Your task to perform on an android device: turn off notifications settings in the gmail app Image 0: 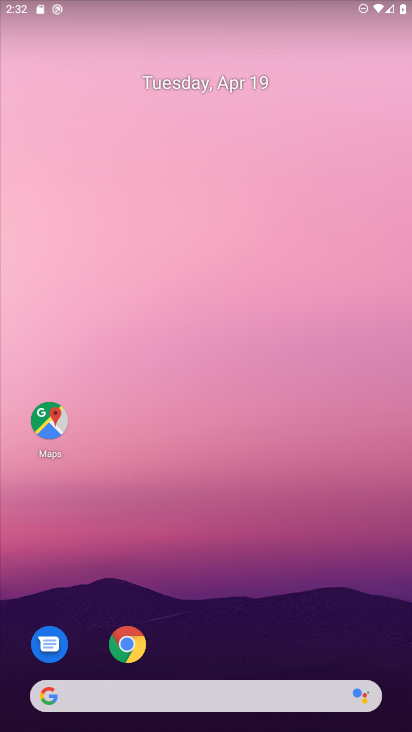
Step 0: drag from (179, 494) to (124, 211)
Your task to perform on an android device: turn off notifications settings in the gmail app Image 1: 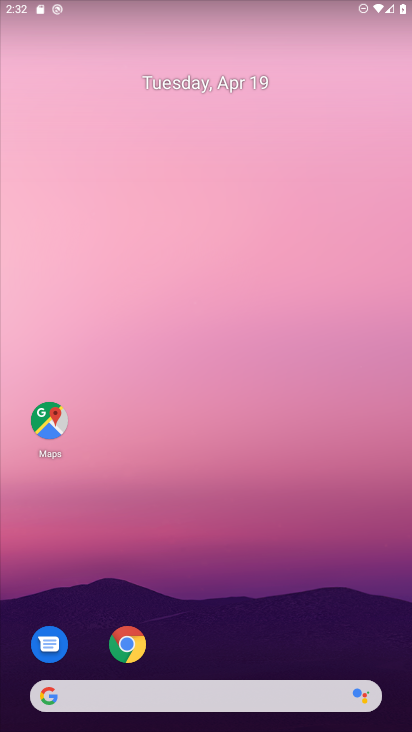
Step 1: drag from (219, 607) to (83, 48)
Your task to perform on an android device: turn off notifications settings in the gmail app Image 2: 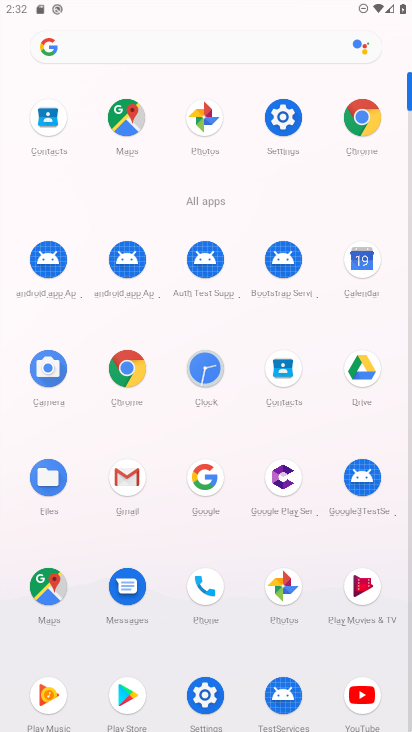
Step 2: click (132, 471)
Your task to perform on an android device: turn off notifications settings in the gmail app Image 3: 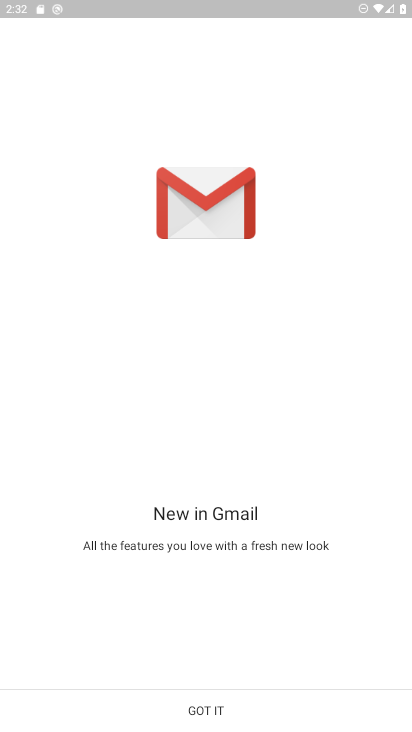
Step 3: click (183, 712)
Your task to perform on an android device: turn off notifications settings in the gmail app Image 4: 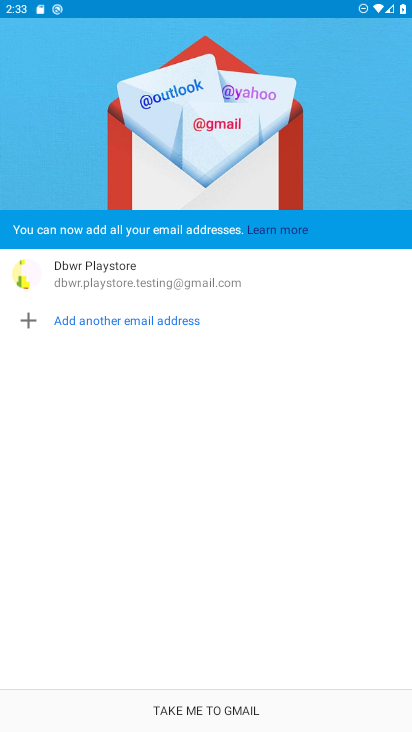
Step 4: click (183, 712)
Your task to perform on an android device: turn off notifications settings in the gmail app Image 5: 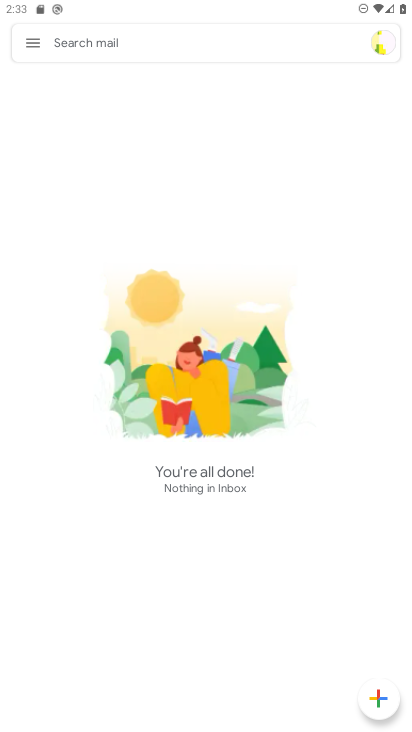
Step 5: click (25, 53)
Your task to perform on an android device: turn off notifications settings in the gmail app Image 6: 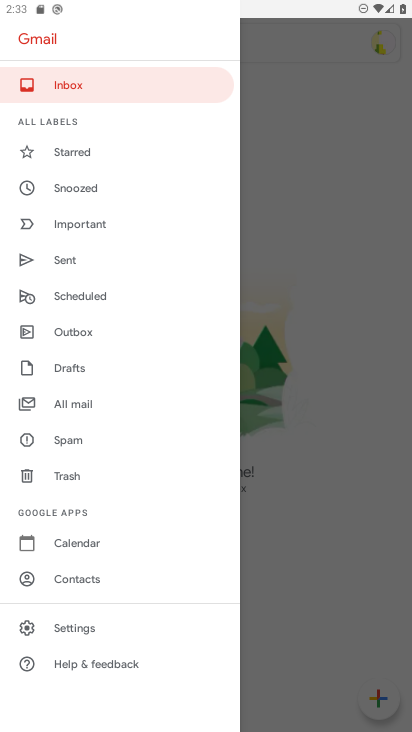
Step 6: click (69, 625)
Your task to perform on an android device: turn off notifications settings in the gmail app Image 7: 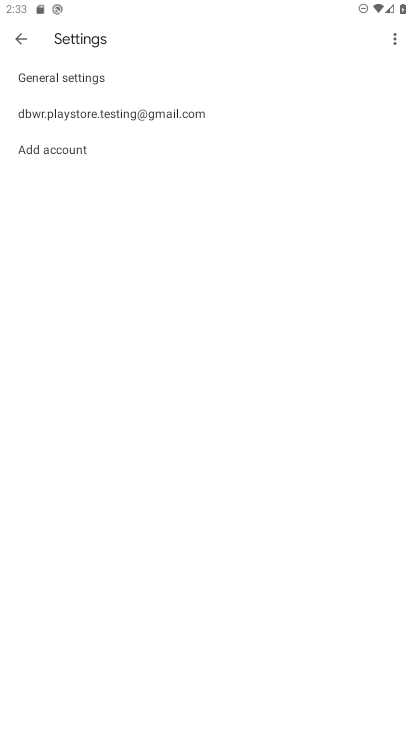
Step 7: click (101, 108)
Your task to perform on an android device: turn off notifications settings in the gmail app Image 8: 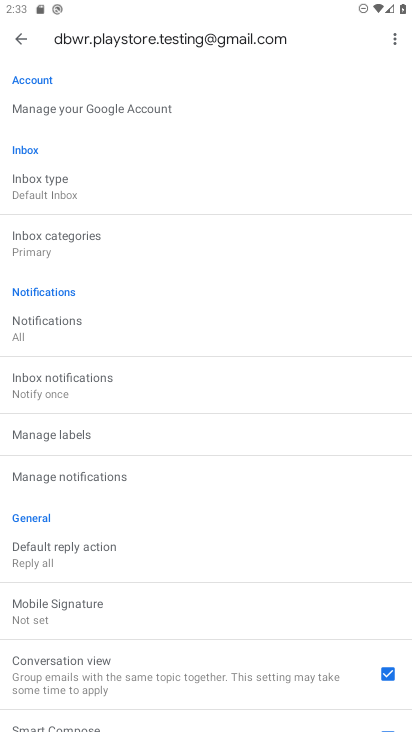
Step 8: click (80, 476)
Your task to perform on an android device: turn off notifications settings in the gmail app Image 9: 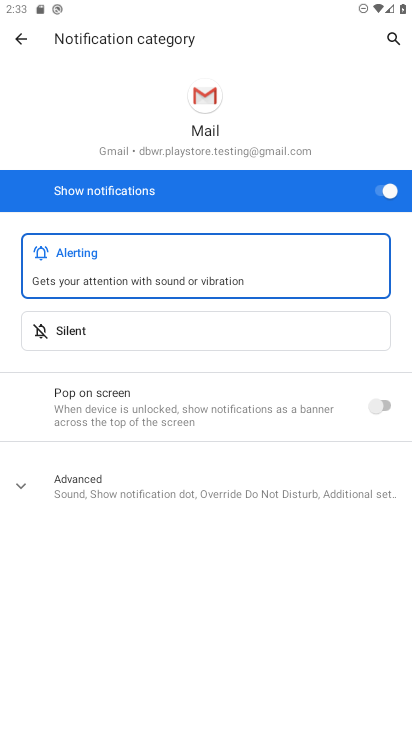
Step 9: click (391, 191)
Your task to perform on an android device: turn off notifications settings in the gmail app Image 10: 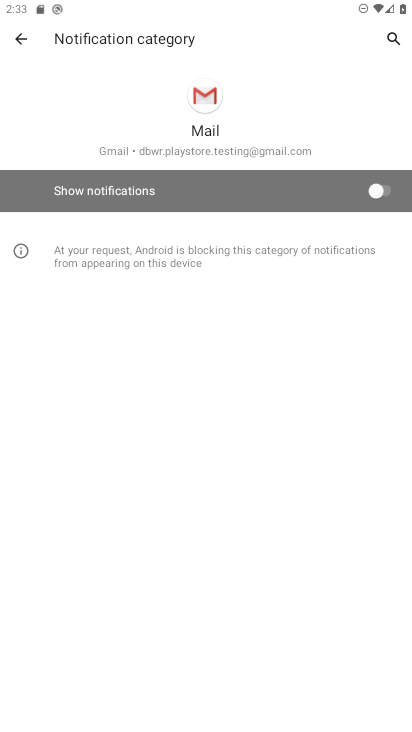
Step 10: task complete